Your task to perform on an android device: Is it going to rain tomorrow? Image 0: 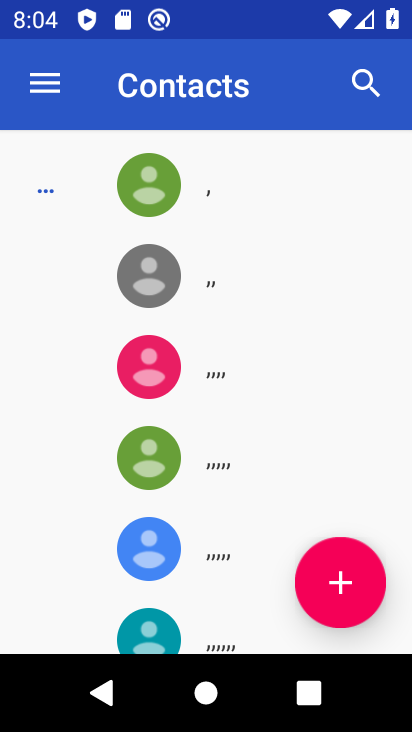
Step 0: press home button
Your task to perform on an android device: Is it going to rain tomorrow? Image 1: 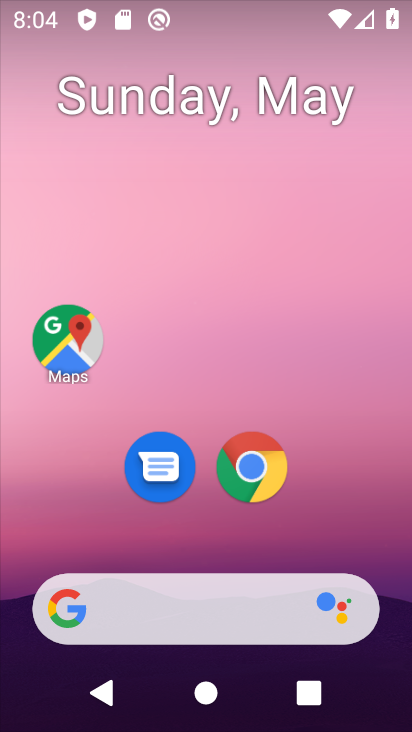
Step 1: click (242, 610)
Your task to perform on an android device: Is it going to rain tomorrow? Image 2: 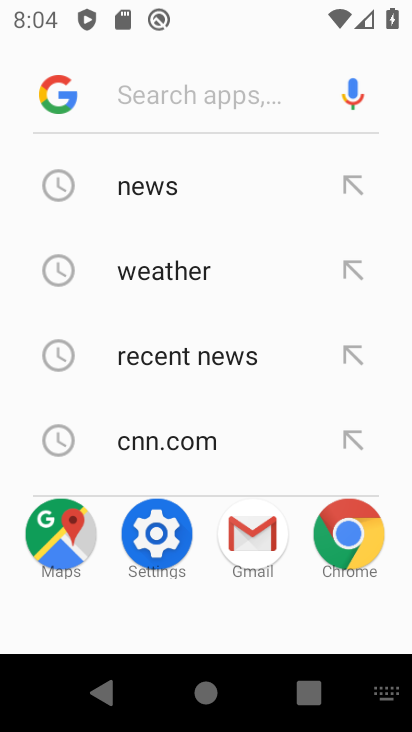
Step 2: click (145, 278)
Your task to perform on an android device: Is it going to rain tomorrow? Image 3: 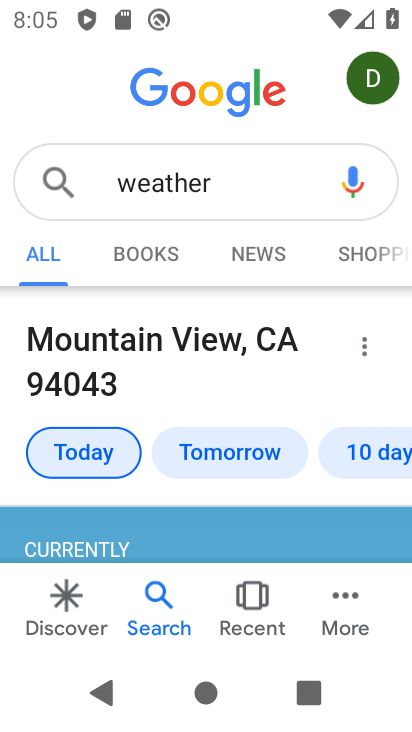
Step 3: click (256, 453)
Your task to perform on an android device: Is it going to rain tomorrow? Image 4: 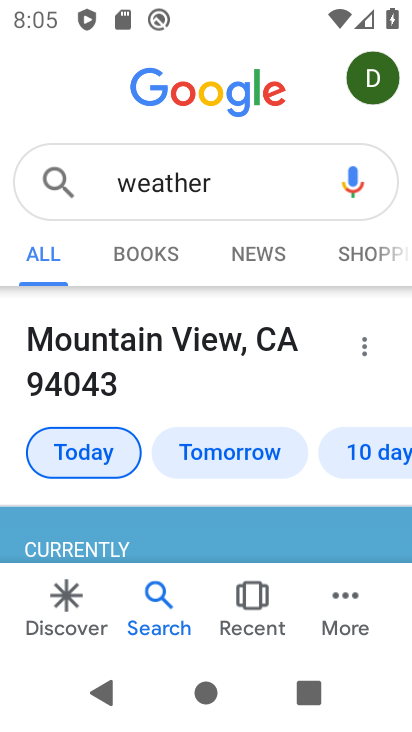
Step 4: click (250, 462)
Your task to perform on an android device: Is it going to rain tomorrow? Image 5: 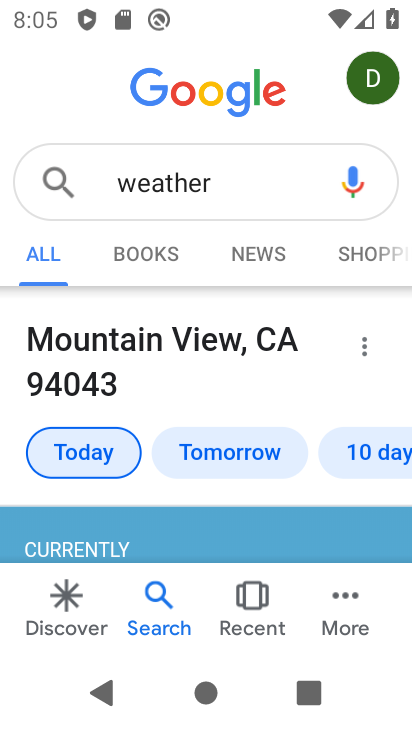
Step 5: click (255, 469)
Your task to perform on an android device: Is it going to rain tomorrow? Image 6: 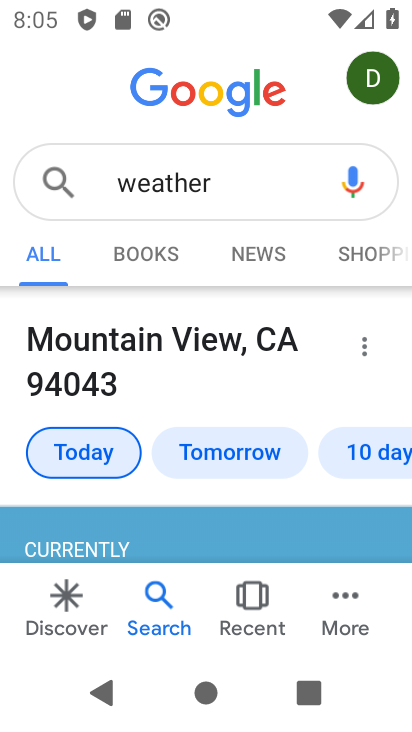
Step 6: click (255, 469)
Your task to perform on an android device: Is it going to rain tomorrow? Image 7: 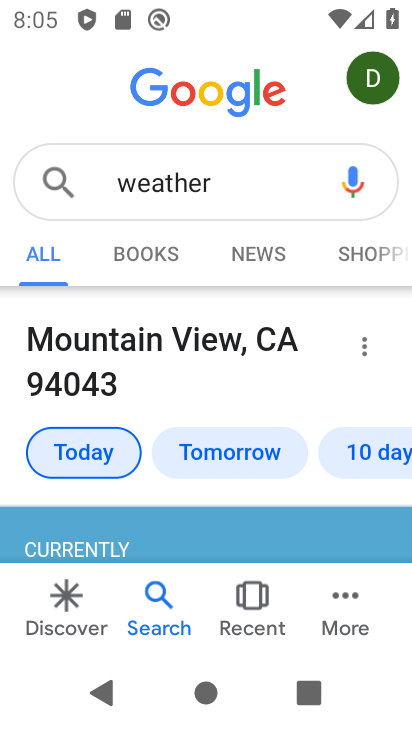
Step 7: click (255, 469)
Your task to perform on an android device: Is it going to rain tomorrow? Image 8: 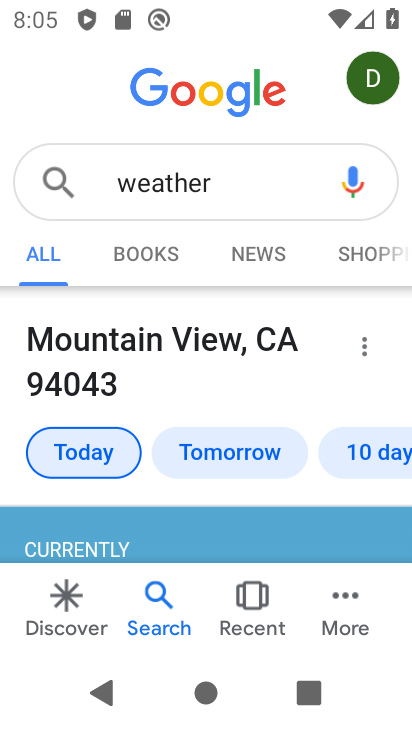
Step 8: click (255, 469)
Your task to perform on an android device: Is it going to rain tomorrow? Image 9: 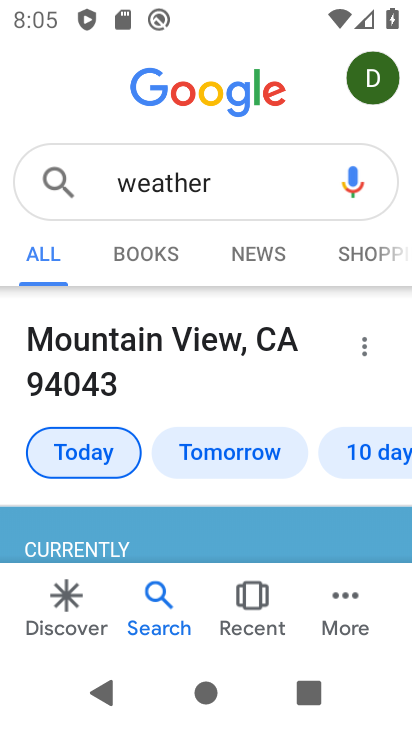
Step 9: drag from (301, 263) to (291, 36)
Your task to perform on an android device: Is it going to rain tomorrow? Image 10: 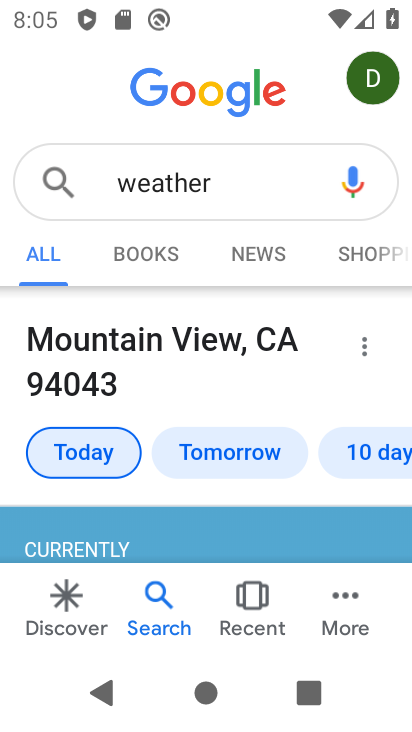
Step 10: drag from (155, 486) to (114, 83)
Your task to perform on an android device: Is it going to rain tomorrow? Image 11: 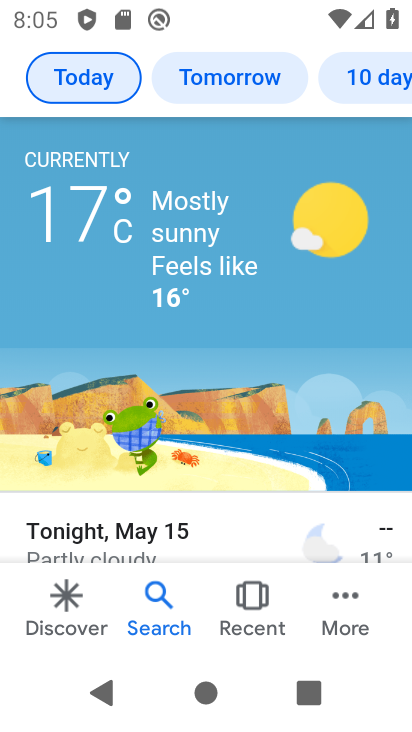
Step 11: drag from (143, 550) to (172, 41)
Your task to perform on an android device: Is it going to rain tomorrow? Image 12: 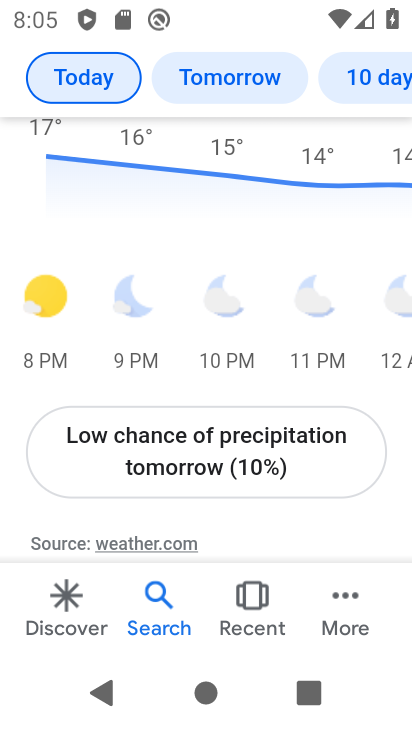
Step 12: click (167, 547)
Your task to perform on an android device: Is it going to rain tomorrow? Image 13: 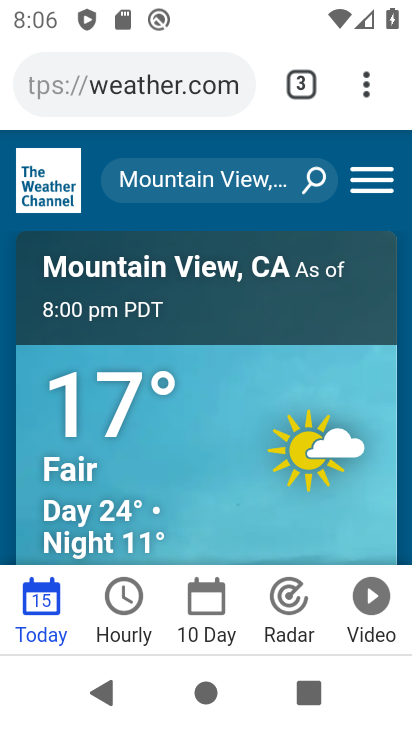
Step 13: drag from (208, 493) to (227, 153)
Your task to perform on an android device: Is it going to rain tomorrow? Image 14: 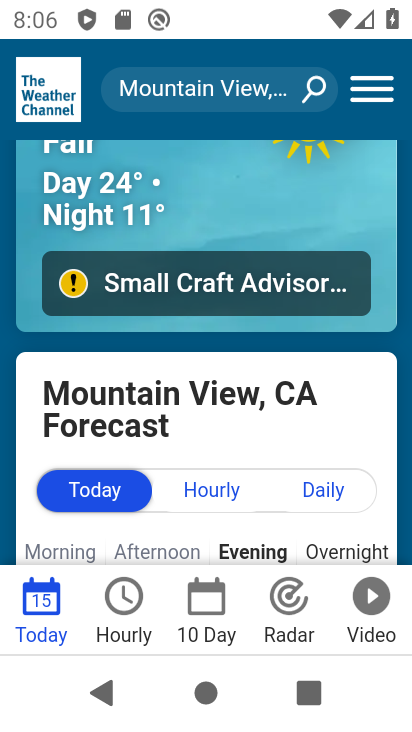
Step 14: drag from (208, 423) to (219, 103)
Your task to perform on an android device: Is it going to rain tomorrow? Image 15: 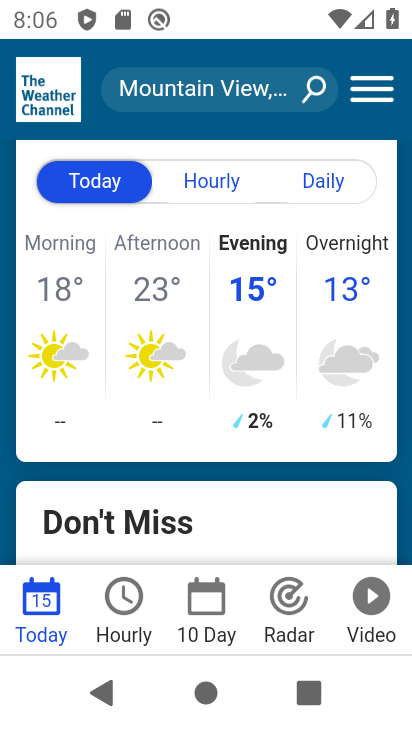
Step 15: drag from (189, 519) to (209, 252)
Your task to perform on an android device: Is it going to rain tomorrow? Image 16: 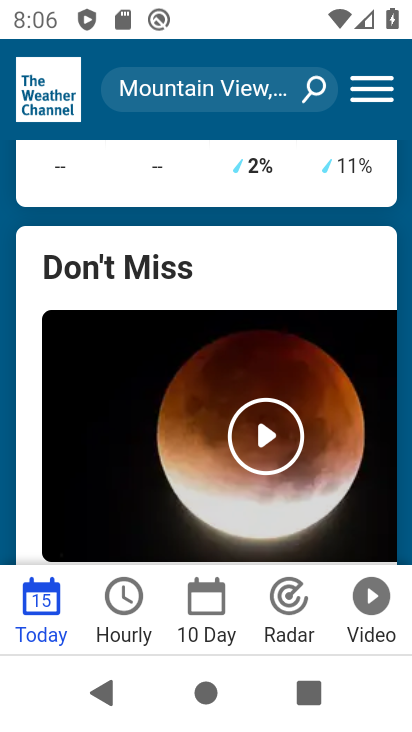
Step 16: click (189, 605)
Your task to perform on an android device: Is it going to rain tomorrow? Image 17: 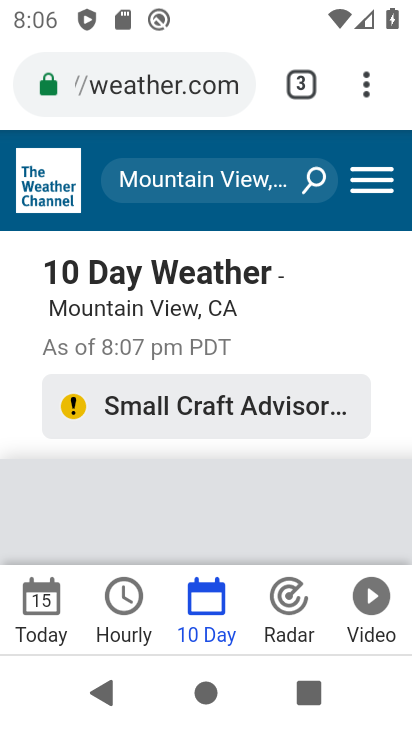
Step 17: task complete